Your task to perform on an android device: install app "DoorDash - Dasher" Image 0: 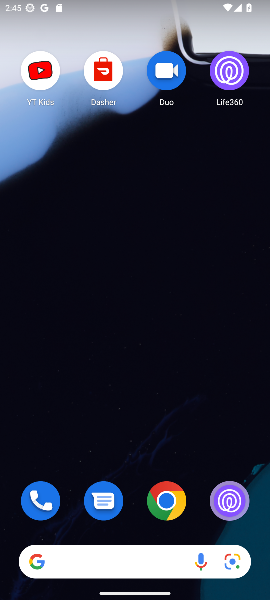
Step 0: drag from (143, 464) to (131, 0)
Your task to perform on an android device: install app "DoorDash - Dasher" Image 1: 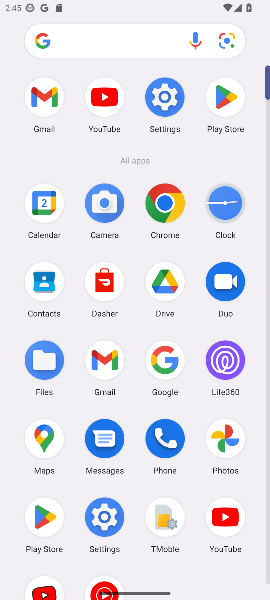
Step 1: click (228, 105)
Your task to perform on an android device: install app "DoorDash - Dasher" Image 2: 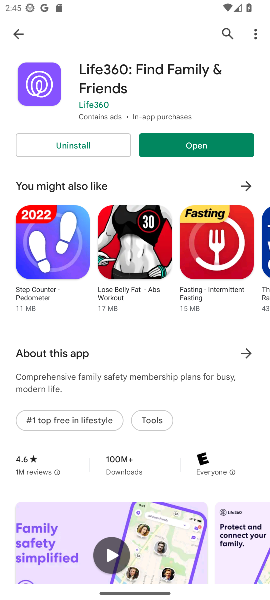
Step 2: click (224, 32)
Your task to perform on an android device: install app "DoorDash - Dasher" Image 3: 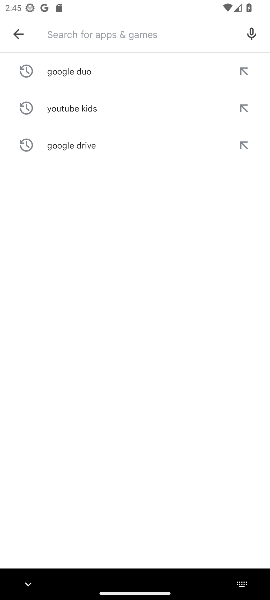
Step 3: type "DoorDash - Dasher"
Your task to perform on an android device: install app "DoorDash - Dasher" Image 4: 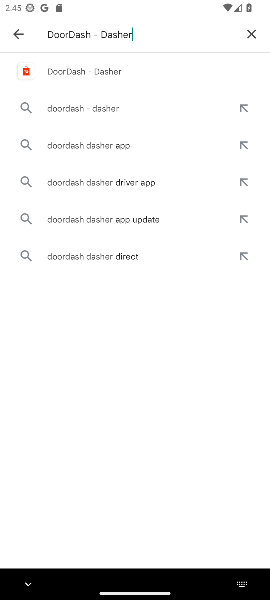
Step 4: click (103, 68)
Your task to perform on an android device: install app "DoorDash - Dasher" Image 5: 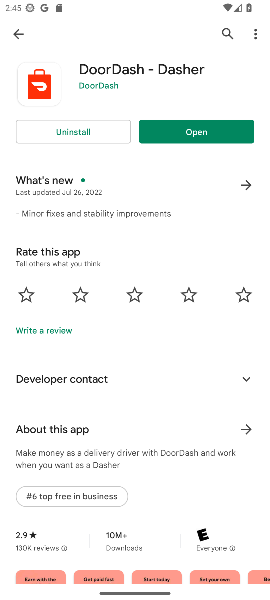
Step 5: task complete